Your task to perform on an android device: change alarm snooze length Image 0: 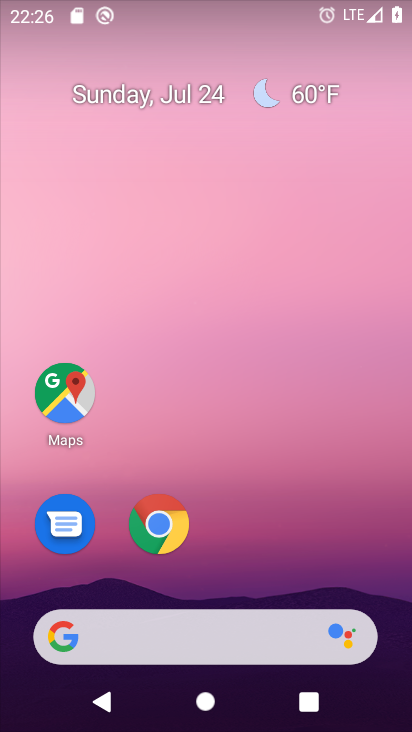
Step 0: drag from (309, 559) to (375, 74)
Your task to perform on an android device: change alarm snooze length Image 1: 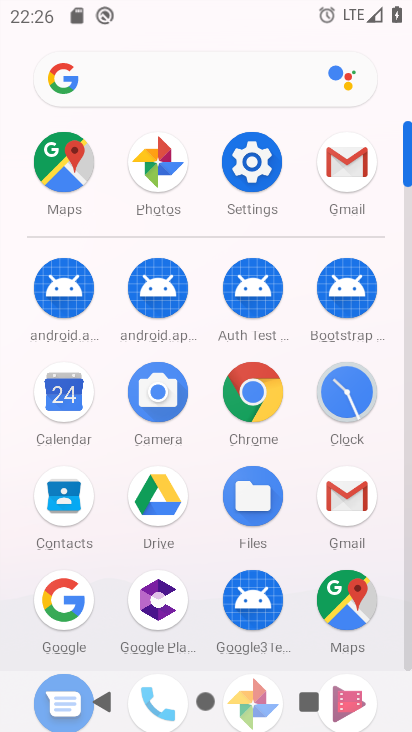
Step 1: click (338, 390)
Your task to perform on an android device: change alarm snooze length Image 2: 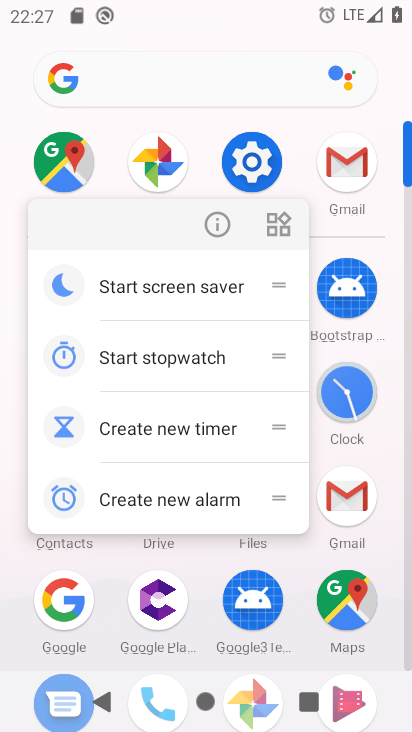
Step 2: click (351, 392)
Your task to perform on an android device: change alarm snooze length Image 3: 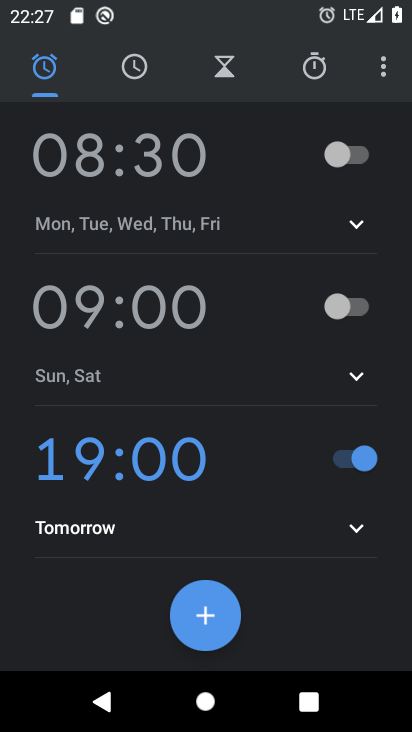
Step 3: click (386, 76)
Your task to perform on an android device: change alarm snooze length Image 4: 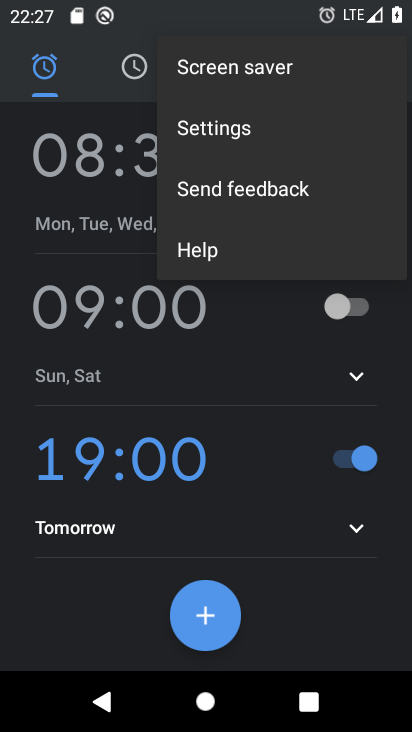
Step 4: click (248, 142)
Your task to perform on an android device: change alarm snooze length Image 5: 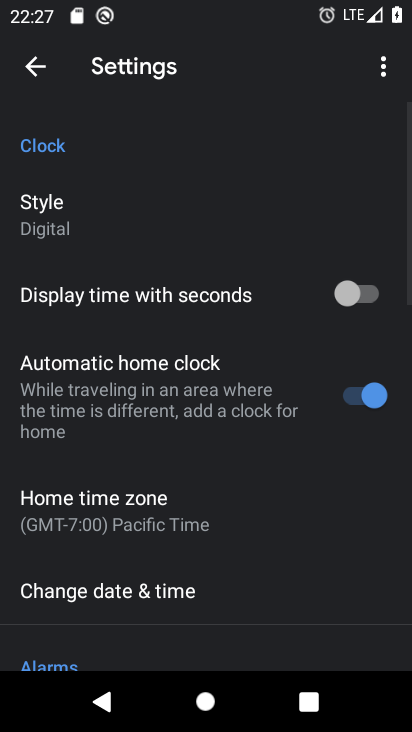
Step 5: drag from (212, 478) to (271, 77)
Your task to perform on an android device: change alarm snooze length Image 6: 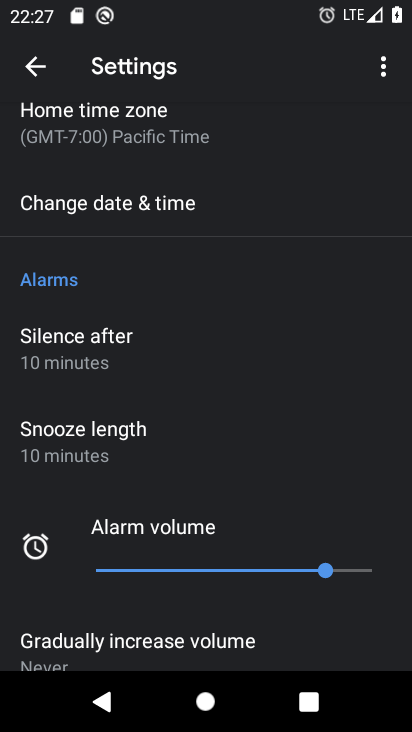
Step 6: click (92, 428)
Your task to perform on an android device: change alarm snooze length Image 7: 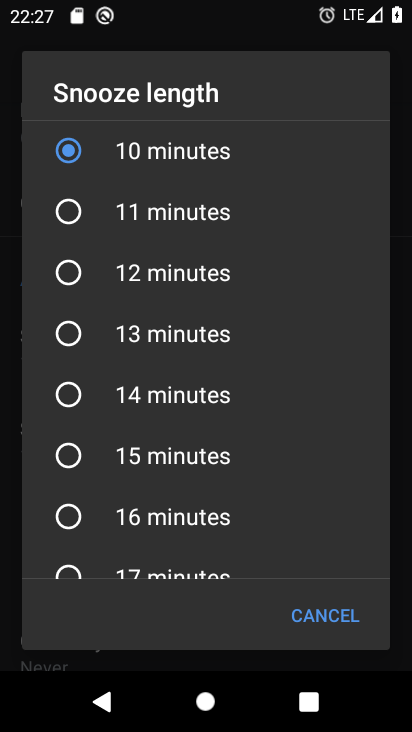
Step 7: click (71, 275)
Your task to perform on an android device: change alarm snooze length Image 8: 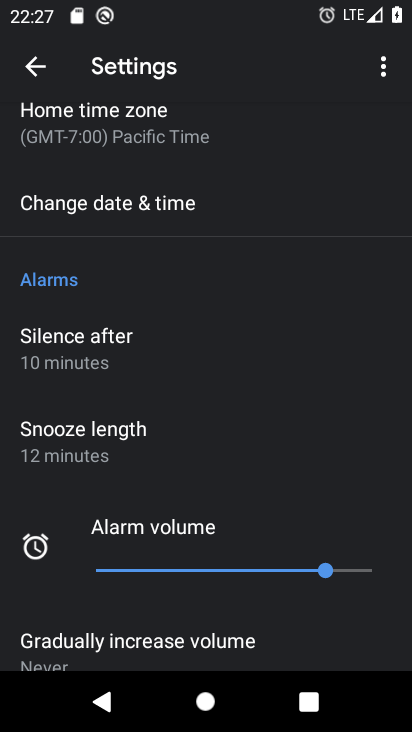
Step 8: task complete